Your task to perform on an android device: open wifi settings Image 0: 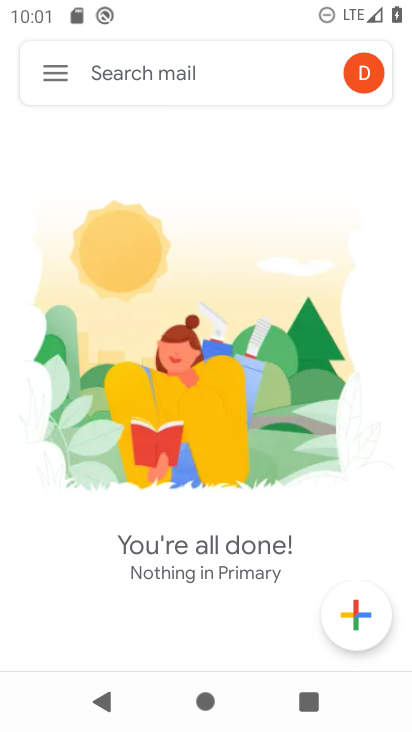
Step 0: press home button
Your task to perform on an android device: open wifi settings Image 1: 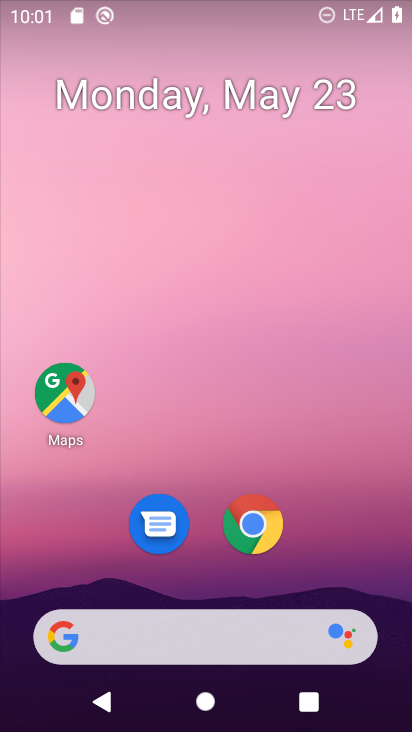
Step 1: drag from (240, 461) to (254, 37)
Your task to perform on an android device: open wifi settings Image 2: 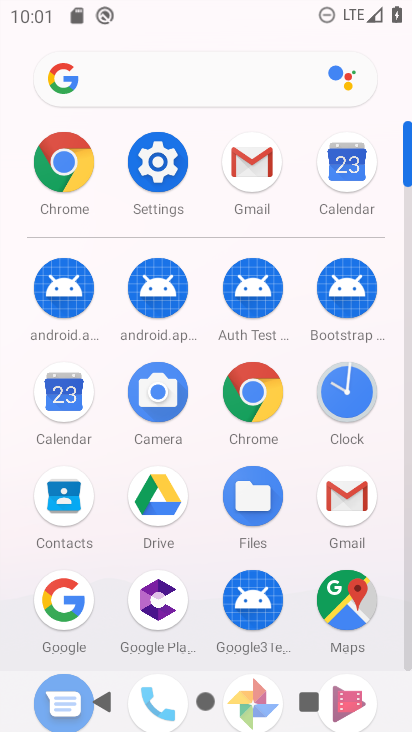
Step 2: click (169, 162)
Your task to perform on an android device: open wifi settings Image 3: 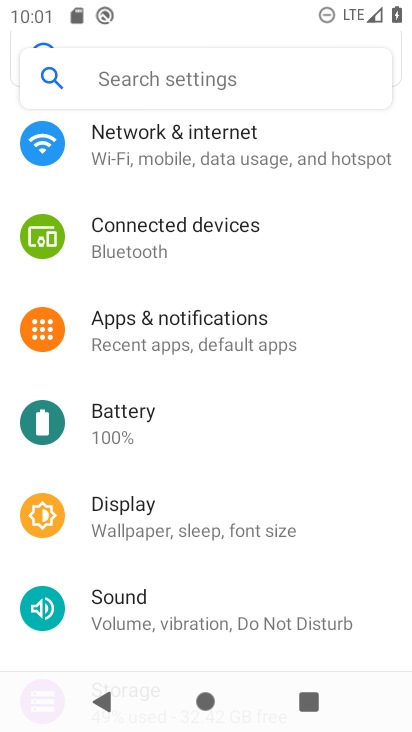
Step 3: click (172, 145)
Your task to perform on an android device: open wifi settings Image 4: 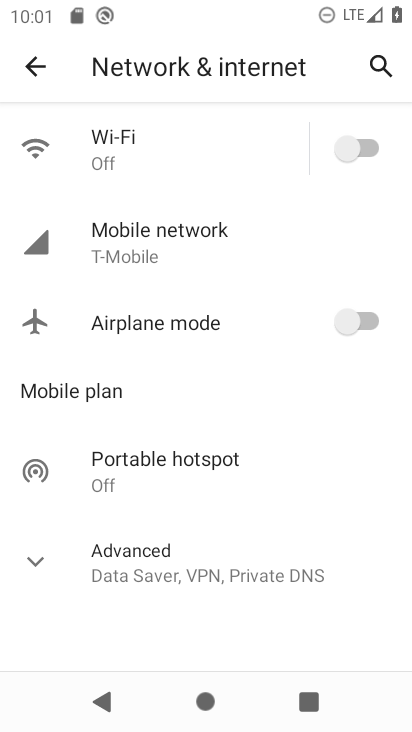
Step 4: click (172, 145)
Your task to perform on an android device: open wifi settings Image 5: 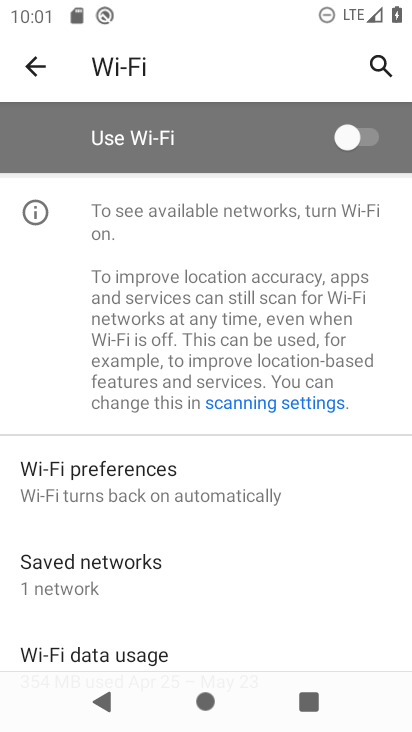
Step 5: task complete